Your task to perform on an android device: toggle location history Image 0: 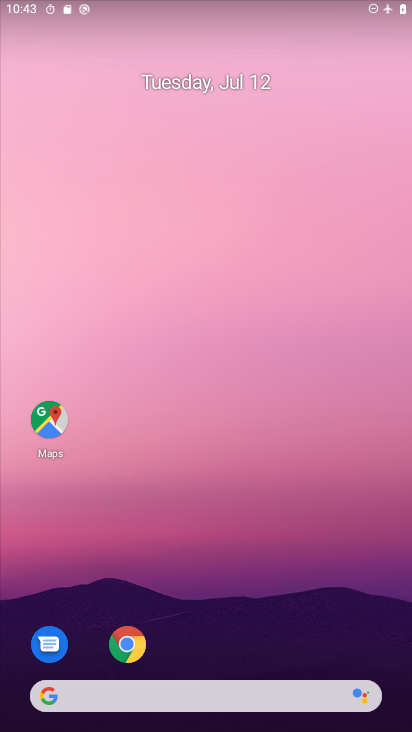
Step 0: drag from (224, 642) to (204, 104)
Your task to perform on an android device: toggle location history Image 1: 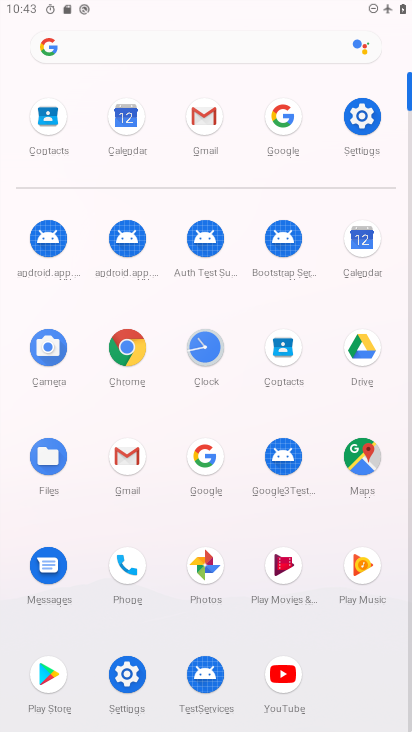
Step 1: click (374, 123)
Your task to perform on an android device: toggle location history Image 2: 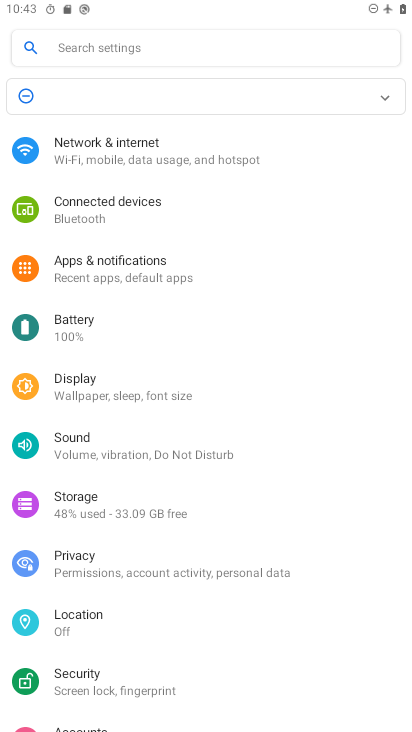
Step 2: click (138, 614)
Your task to perform on an android device: toggle location history Image 3: 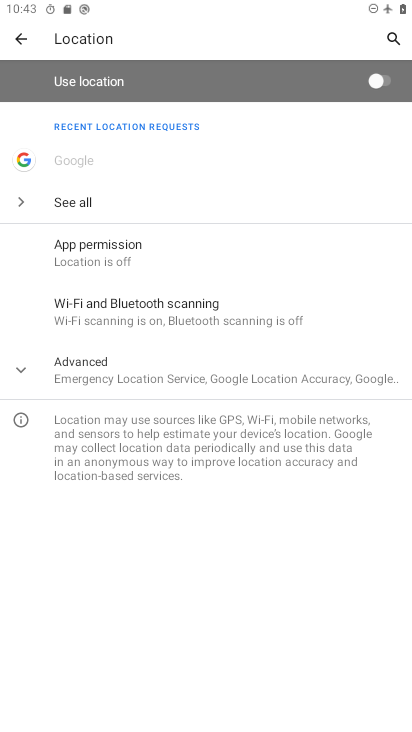
Step 3: click (158, 383)
Your task to perform on an android device: toggle location history Image 4: 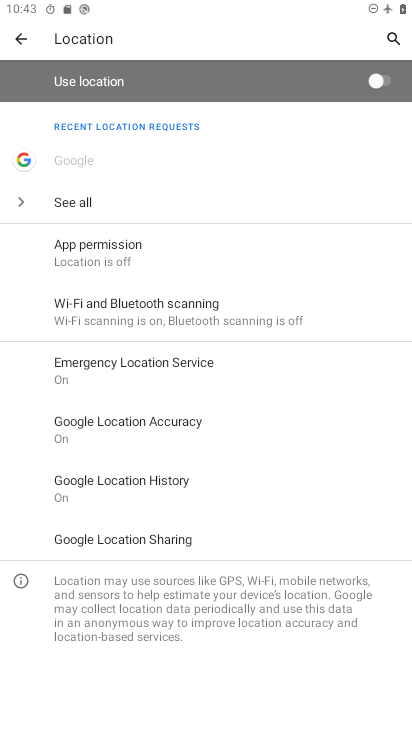
Step 4: click (190, 476)
Your task to perform on an android device: toggle location history Image 5: 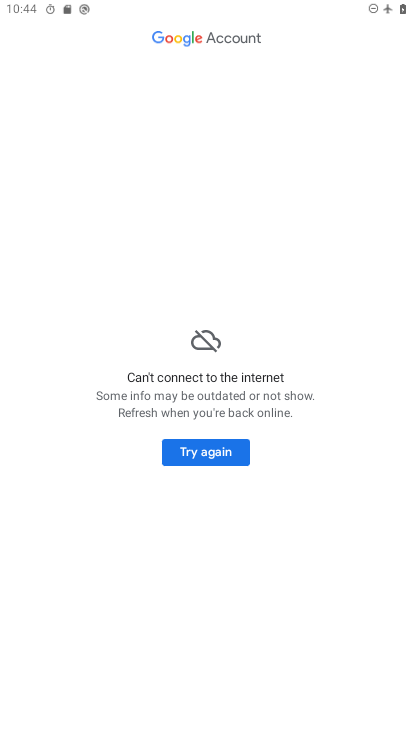
Step 5: task complete